Your task to perform on an android device: turn on bluetooth scan Image 0: 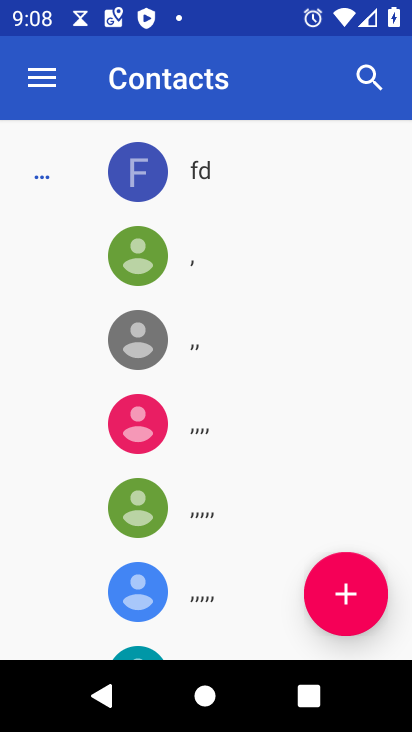
Step 0: press home button
Your task to perform on an android device: turn on bluetooth scan Image 1: 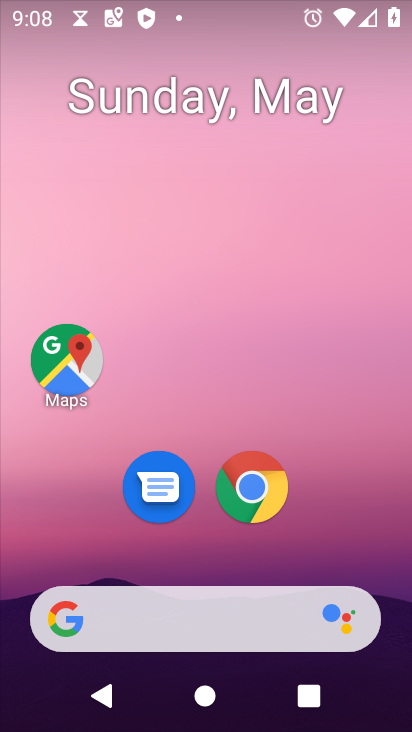
Step 1: drag from (382, 515) to (359, 52)
Your task to perform on an android device: turn on bluetooth scan Image 2: 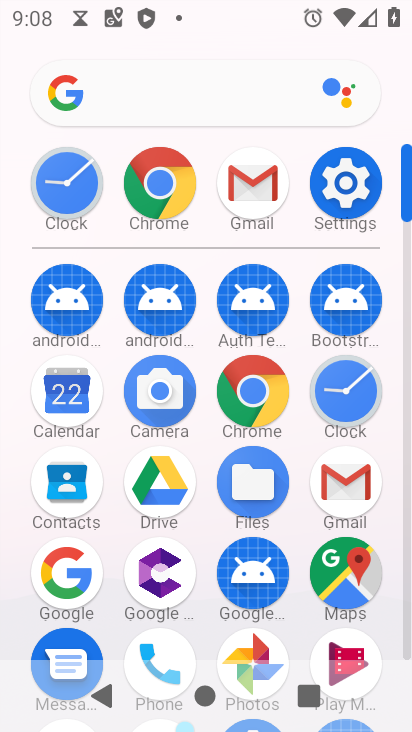
Step 2: click (380, 179)
Your task to perform on an android device: turn on bluetooth scan Image 3: 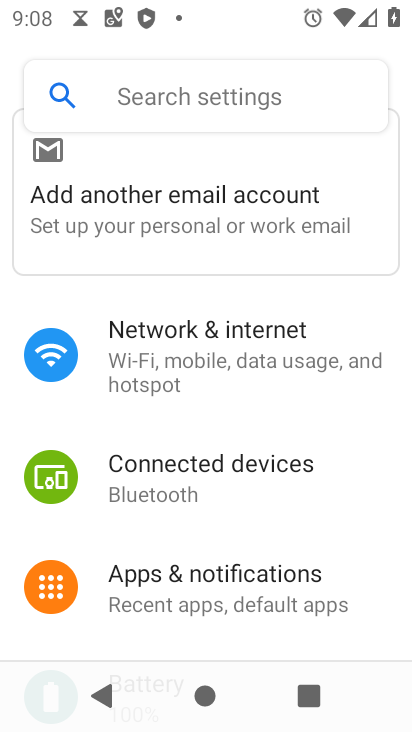
Step 3: drag from (199, 510) to (228, 175)
Your task to perform on an android device: turn on bluetooth scan Image 4: 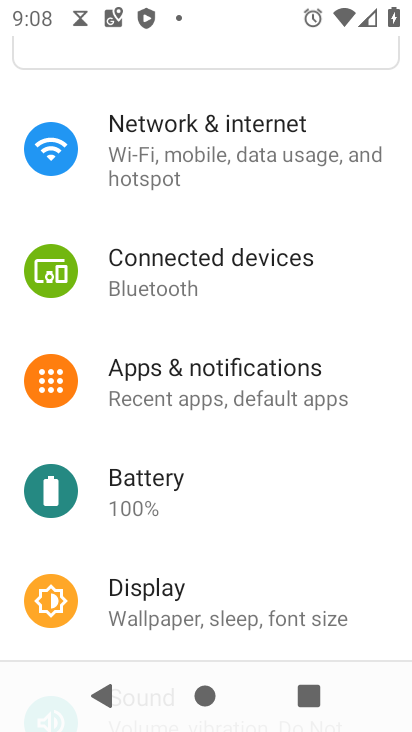
Step 4: drag from (219, 549) to (210, 269)
Your task to perform on an android device: turn on bluetooth scan Image 5: 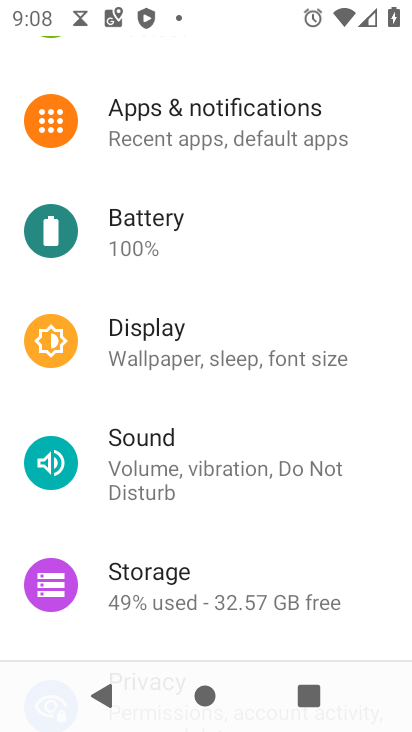
Step 5: drag from (189, 529) to (223, 272)
Your task to perform on an android device: turn on bluetooth scan Image 6: 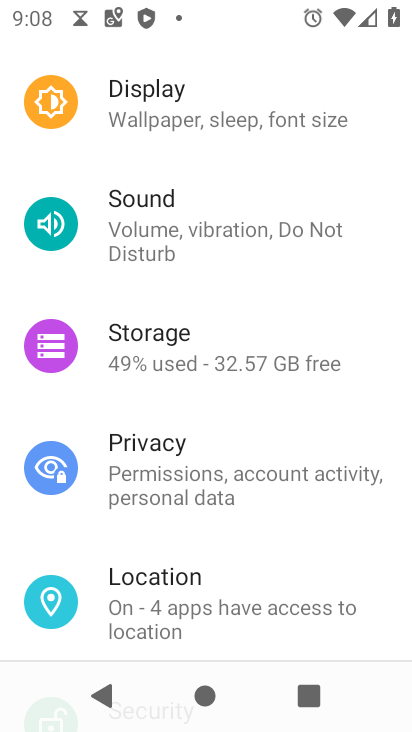
Step 6: click (161, 580)
Your task to perform on an android device: turn on bluetooth scan Image 7: 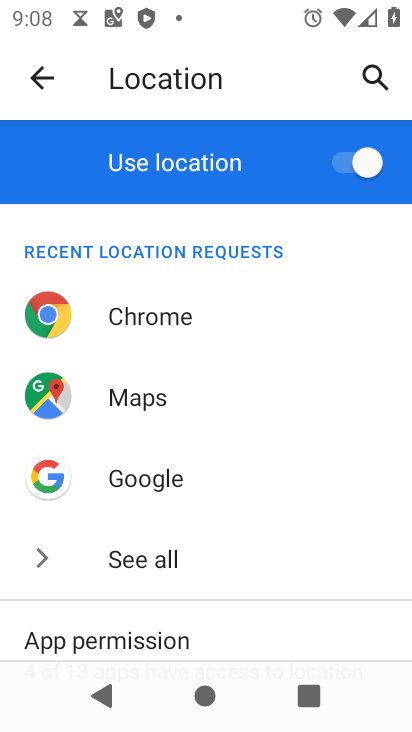
Step 7: drag from (225, 551) to (234, 184)
Your task to perform on an android device: turn on bluetooth scan Image 8: 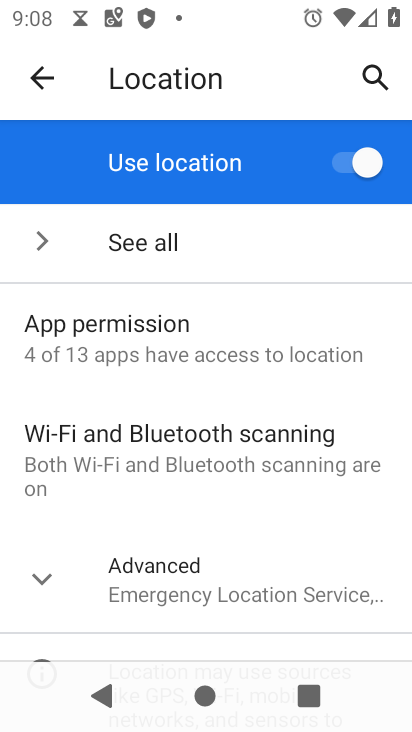
Step 8: click (172, 449)
Your task to perform on an android device: turn on bluetooth scan Image 9: 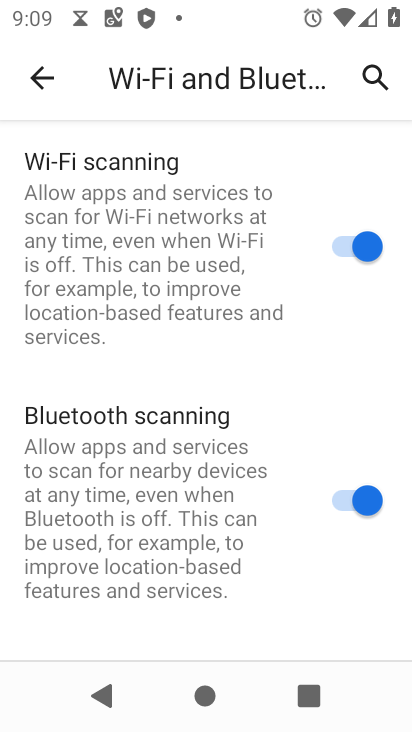
Step 9: task complete